Your task to perform on an android device: Go to wifi settings Image 0: 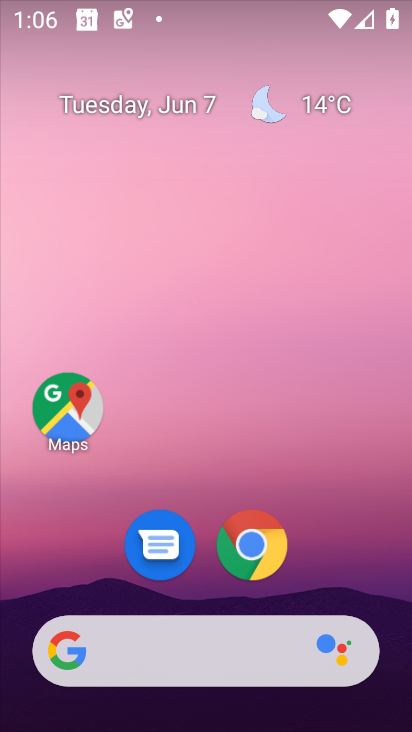
Step 0: drag from (367, 545) to (366, 133)
Your task to perform on an android device: Go to wifi settings Image 1: 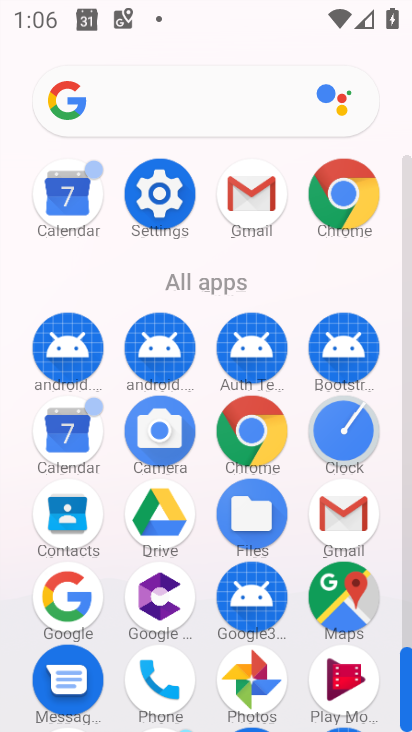
Step 1: click (162, 209)
Your task to perform on an android device: Go to wifi settings Image 2: 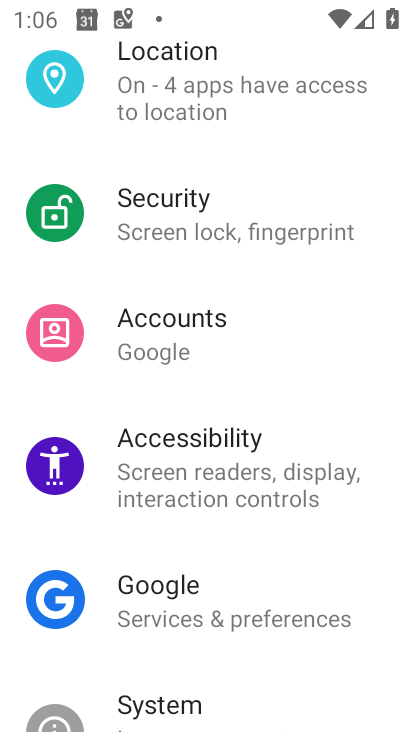
Step 2: drag from (278, 182) to (258, 509)
Your task to perform on an android device: Go to wifi settings Image 3: 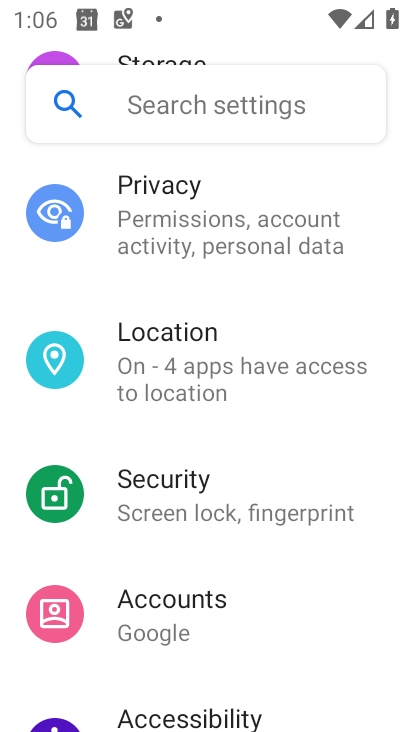
Step 3: drag from (286, 251) to (240, 629)
Your task to perform on an android device: Go to wifi settings Image 4: 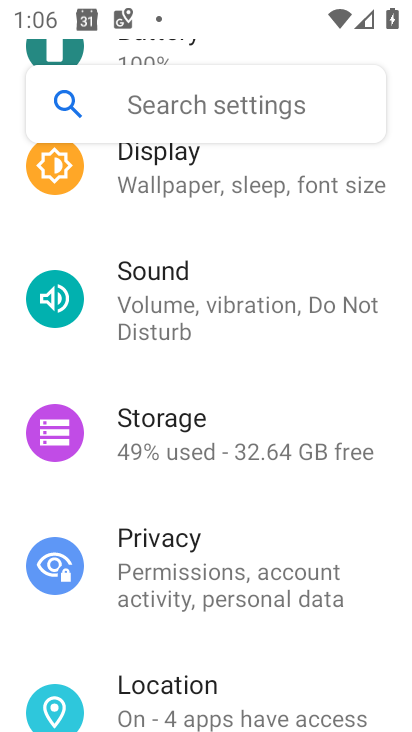
Step 4: drag from (280, 230) to (257, 608)
Your task to perform on an android device: Go to wifi settings Image 5: 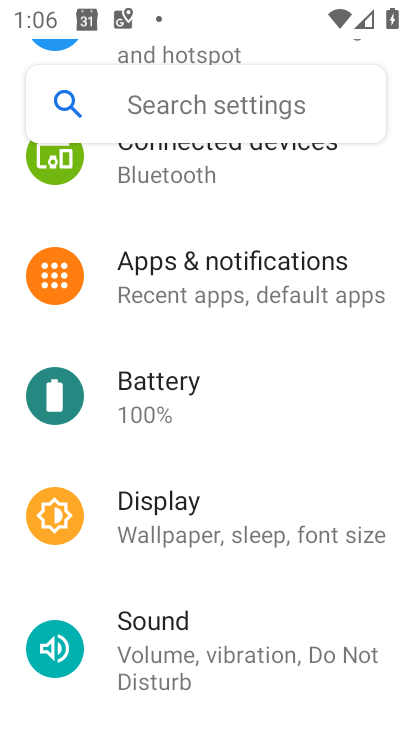
Step 5: drag from (306, 191) to (304, 656)
Your task to perform on an android device: Go to wifi settings Image 6: 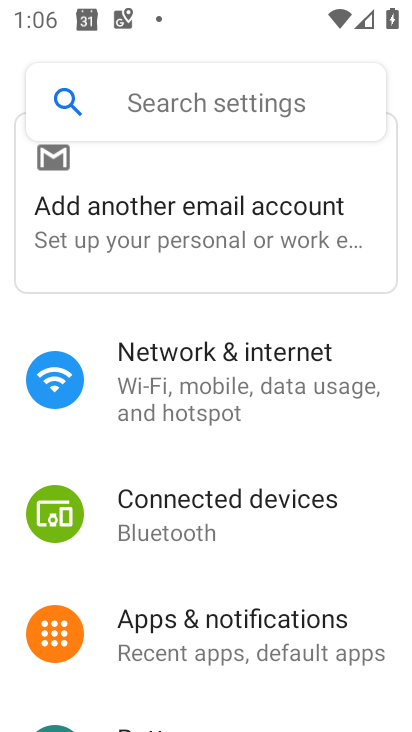
Step 6: click (264, 386)
Your task to perform on an android device: Go to wifi settings Image 7: 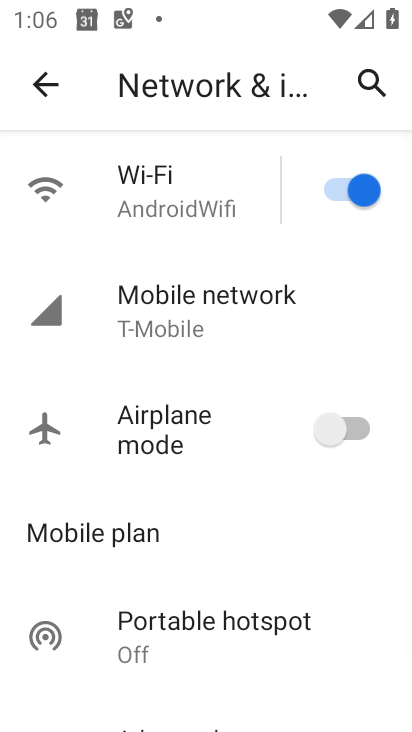
Step 7: click (218, 177)
Your task to perform on an android device: Go to wifi settings Image 8: 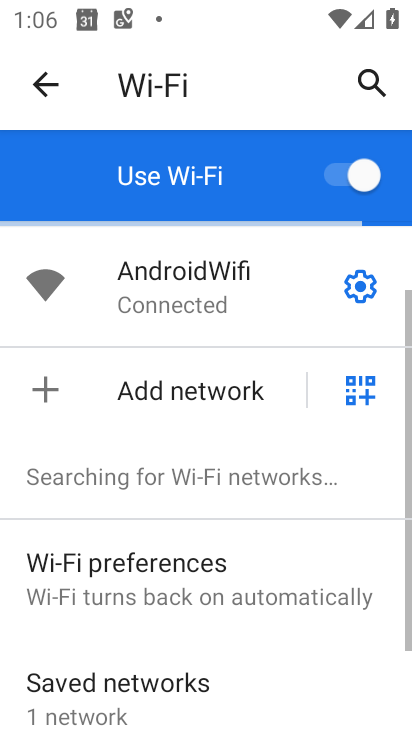
Step 8: click (349, 284)
Your task to perform on an android device: Go to wifi settings Image 9: 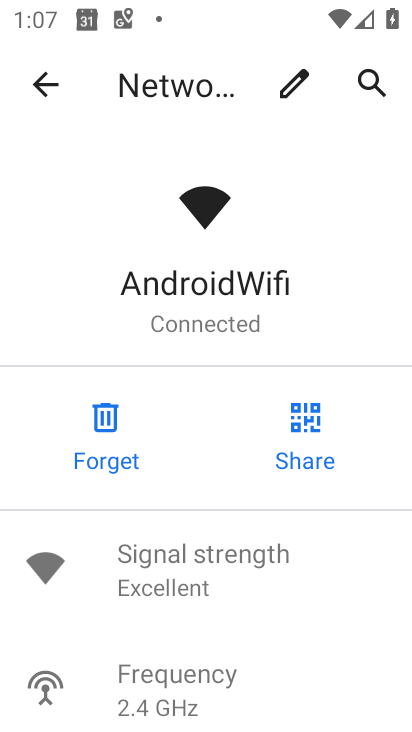
Step 9: task complete